Your task to perform on an android device: Go to Maps Image 0: 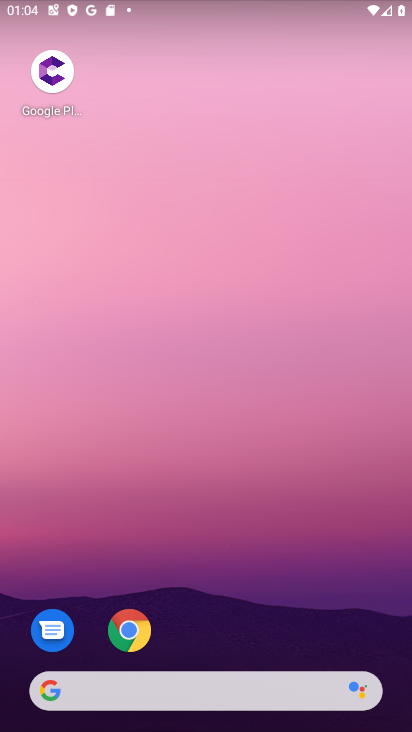
Step 0: drag from (293, 626) to (15, 73)
Your task to perform on an android device: Go to Maps Image 1: 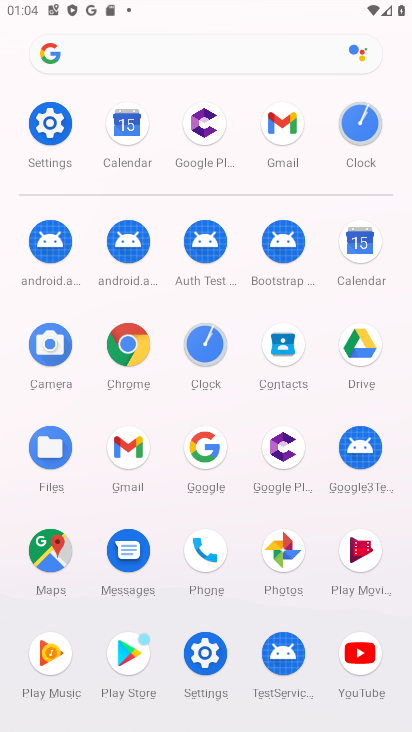
Step 1: click (59, 568)
Your task to perform on an android device: Go to Maps Image 2: 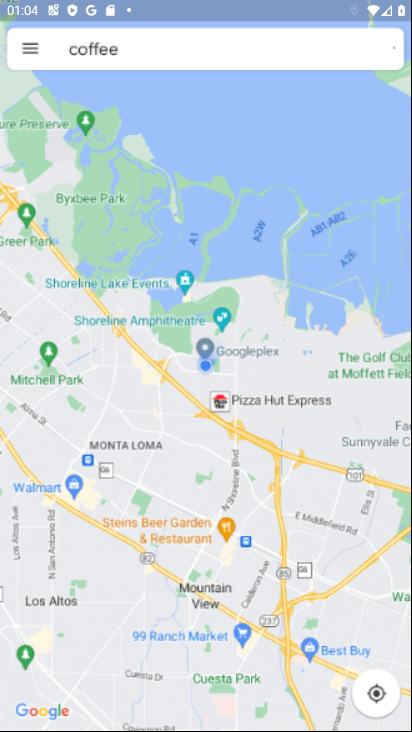
Step 2: task complete